Your task to perform on an android device: Search for Italian restaurants on Maps Image 0: 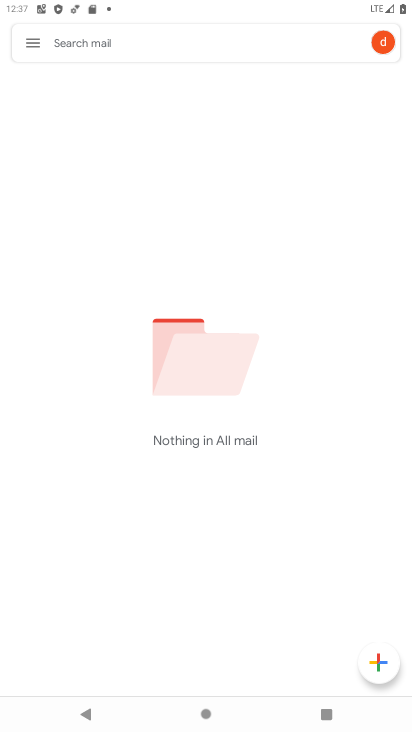
Step 0: press home button
Your task to perform on an android device: Search for Italian restaurants on Maps Image 1: 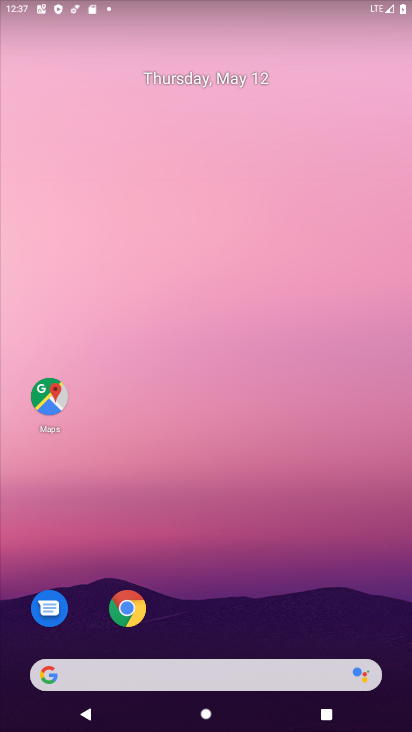
Step 1: click (54, 397)
Your task to perform on an android device: Search for Italian restaurants on Maps Image 2: 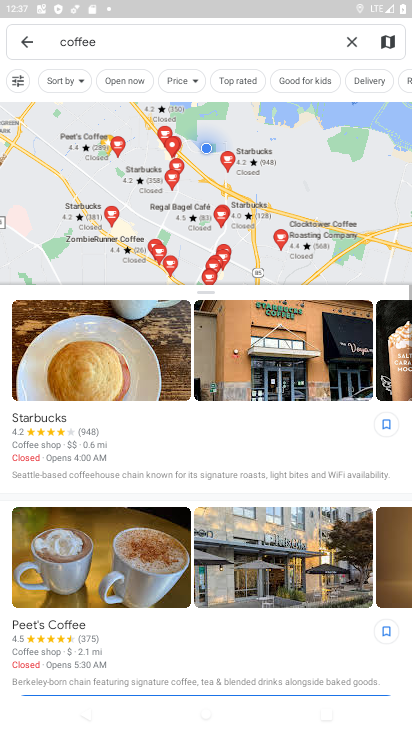
Step 2: click (352, 41)
Your task to perform on an android device: Search for Italian restaurants on Maps Image 3: 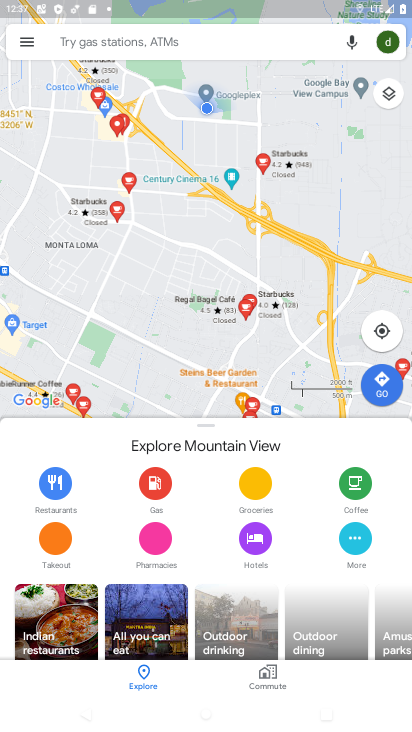
Step 3: click (74, 39)
Your task to perform on an android device: Search for Italian restaurants on Maps Image 4: 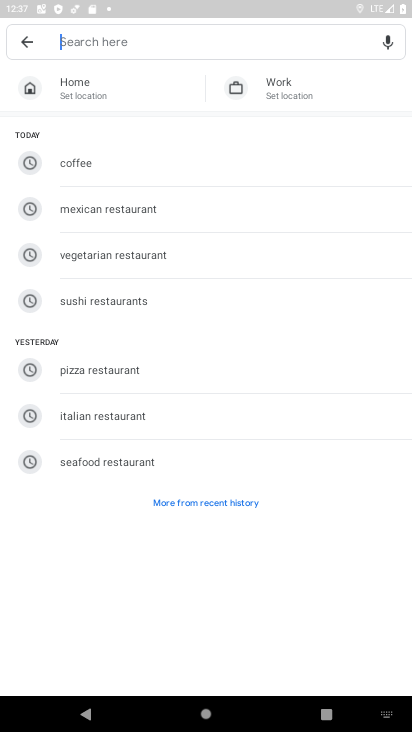
Step 4: type "italian restaurant"
Your task to perform on an android device: Search for Italian restaurants on Maps Image 5: 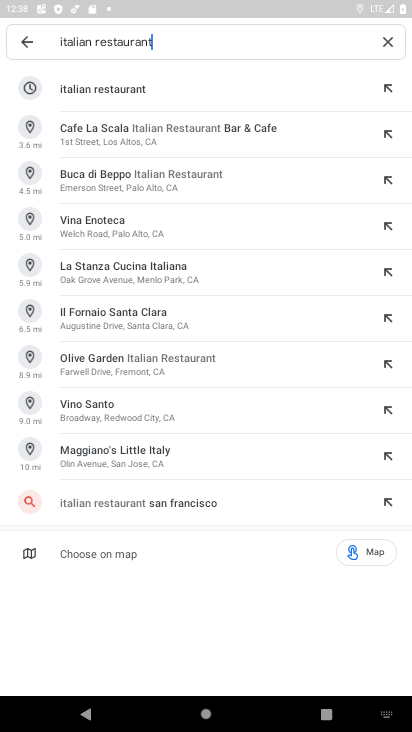
Step 5: click (106, 90)
Your task to perform on an android device: Search for Italian restaurants on Maps Image 6: 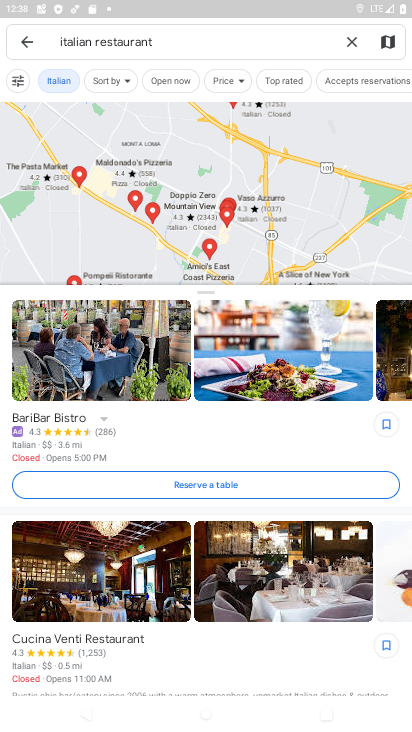
Step 6: task complete